Your task to perform on an android device: Show the shopping cart on walmart. Search for logitech g pro on walmart, select the first entry, and add it to the cart. Image 0: 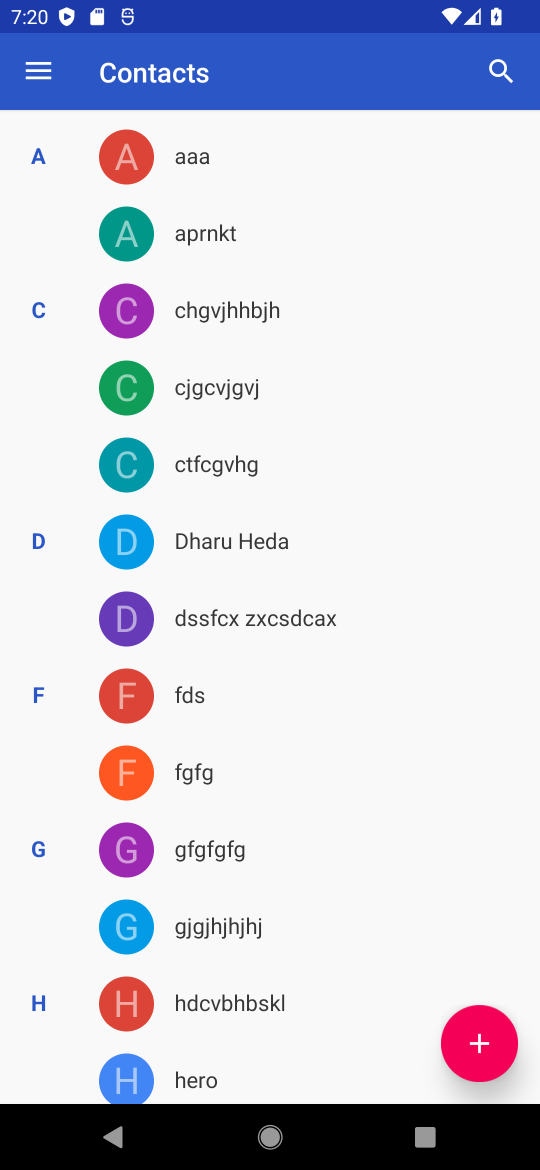
Step 0: press home button
Your task to perform on an android device: Show the shopping cart on walmart. Search for logitech g pro on walmart, select the first entry, and add it to the cart. Image 1: 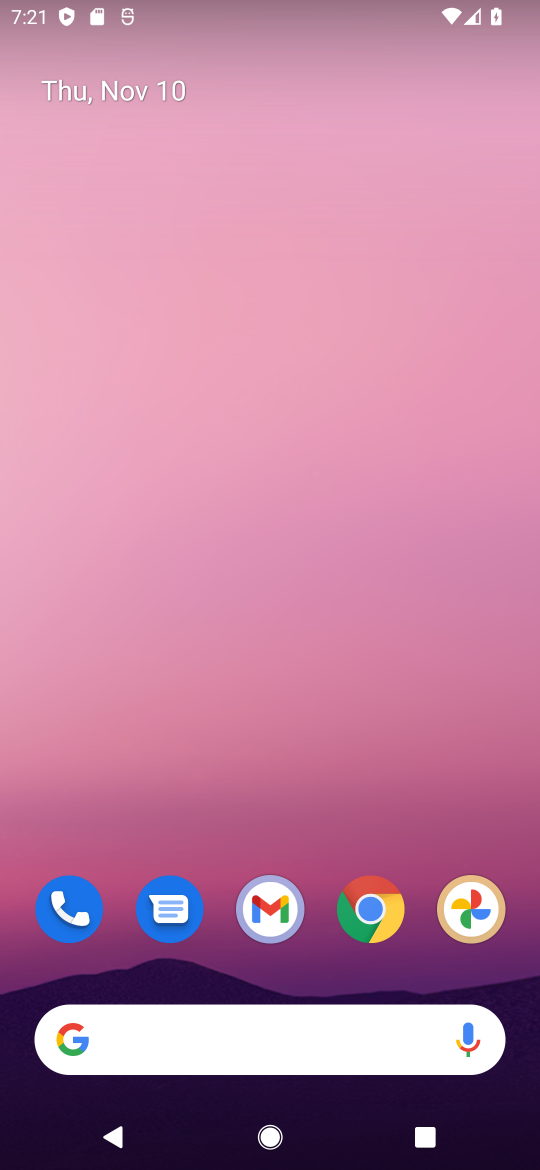
Step 1: drag from (237, 962) to (221, 411)
Your task to perform on an android device: Show the shopping cart on walmart. Search for logitech g pro on walmart, select the first entry, and add it to the cart. Image 2: 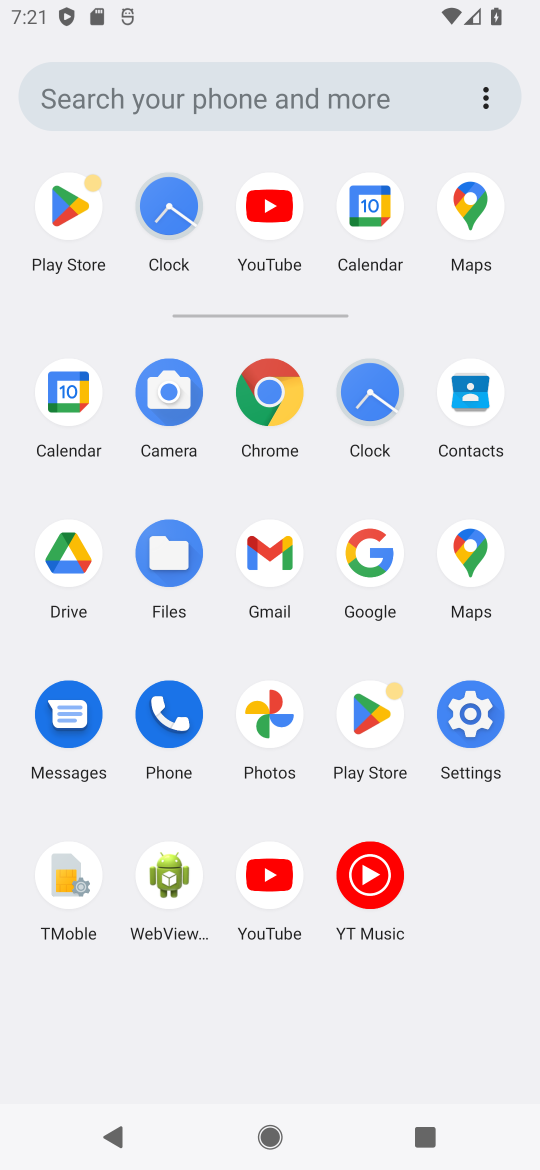
Step 2: click (377, 557)
Your task to perform on an android device: Show the shopping cart on walmart. Search for logitech g pro on walmart, select the first entry, and add it to the cart. Image 3: 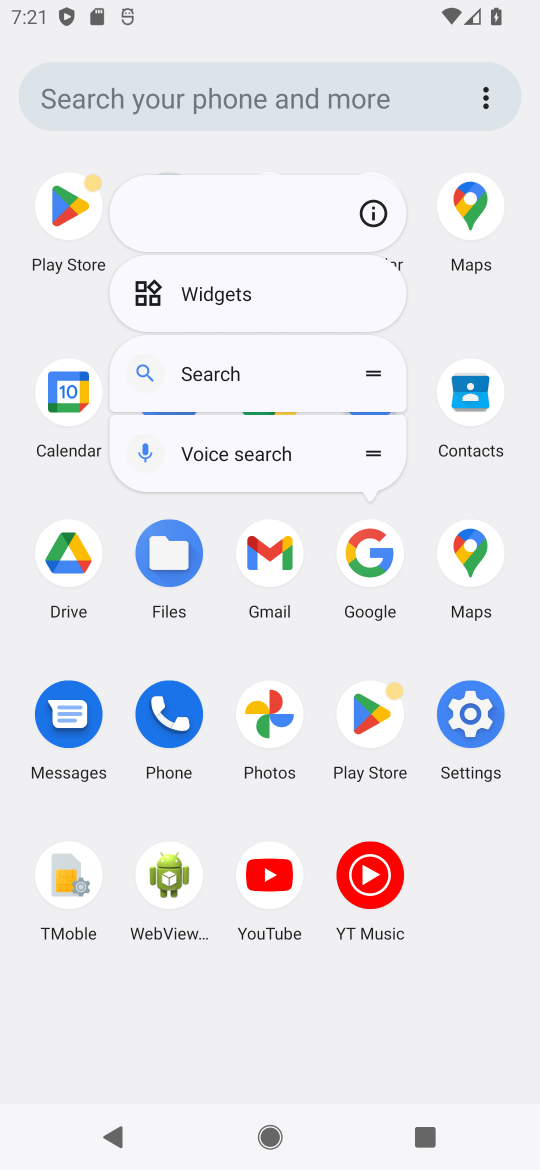
Step 3: click (355, 540)
Your task to perform on an android device: Show the shopping cart on walmart. Search for logitech g pro on walmart, select the first entry, and add it to the cart. Image 4: 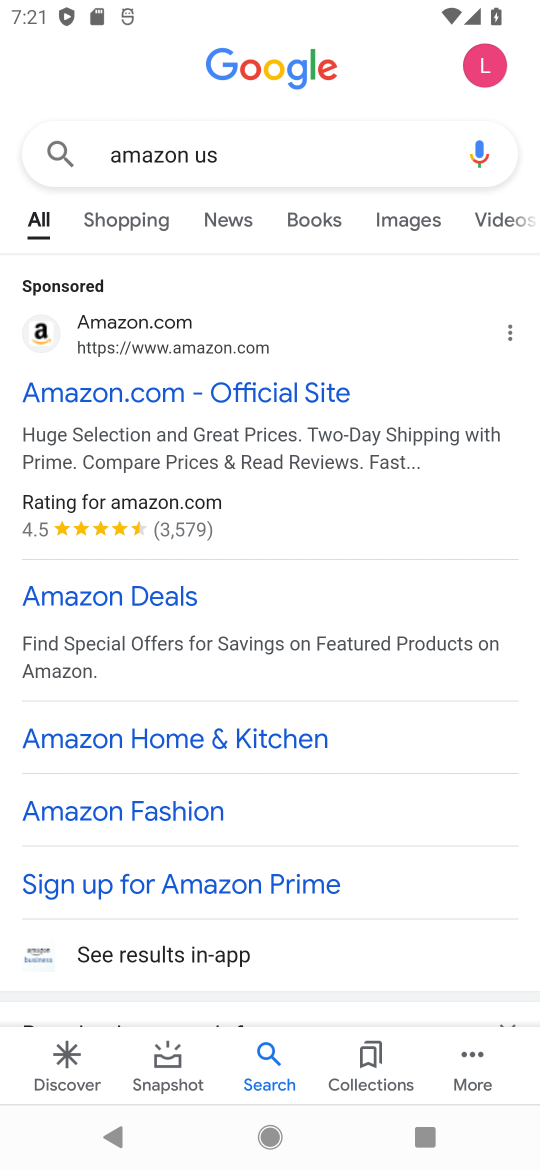
Step 4: click (39, 336)
Your task to perform on an android device: Show the shopping cart on walmart. Search for logitech g pro on walmart, select the first entry, and add it to the cart. Image 5: 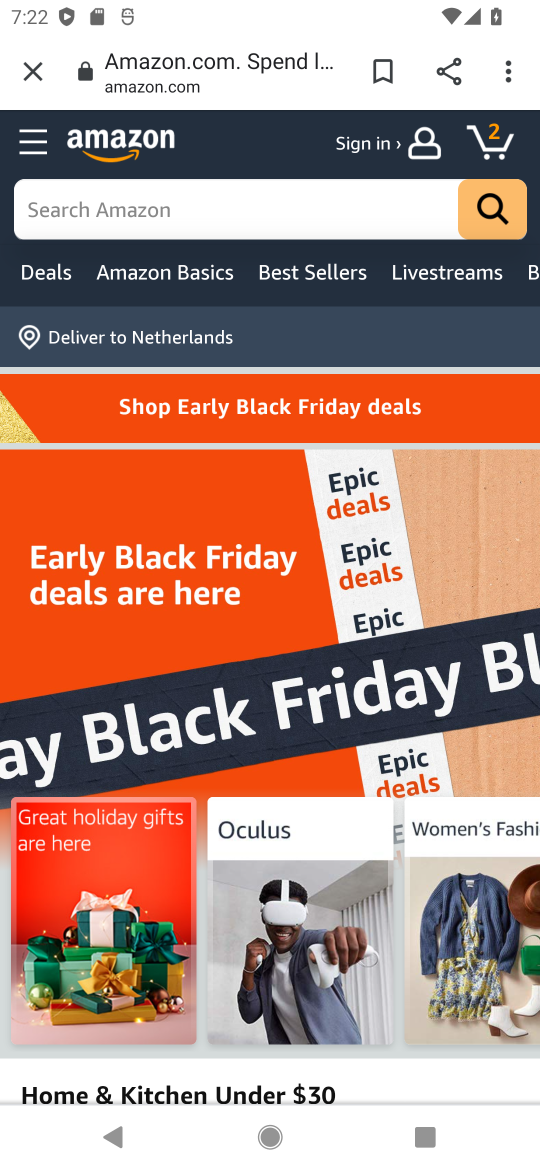
Step 5: click (189, 202)
Your task to perform on an android device: Show the shopping cart on walmart. Search for logitech g pro on walmart, select the first entry, and add it to the cart. Image 6: 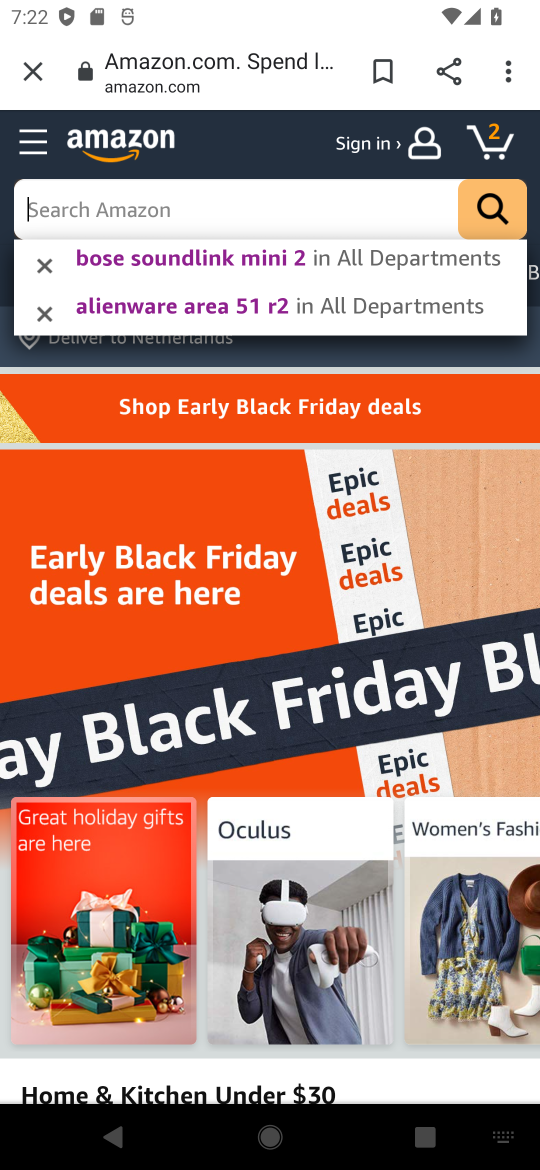
Step 6: type "logitech g pro  "
Your task to perform on an android device: Show the shopping cart on walmart. Search for logitech g pro on walmart, select the first entry, and add it to the cart. Image 7: 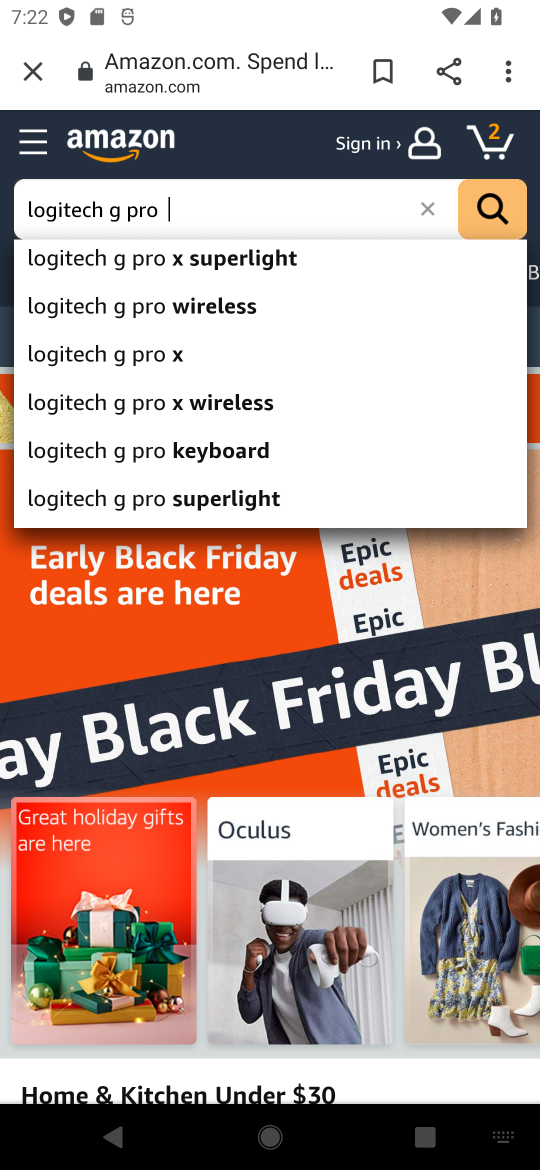
Step 7: click (103, 357)
Your task to perform on an android device: Show the shopping cart on walmart. Search for logitech g pro on walmart, select the first entry, and add it to the cart. Image 8: 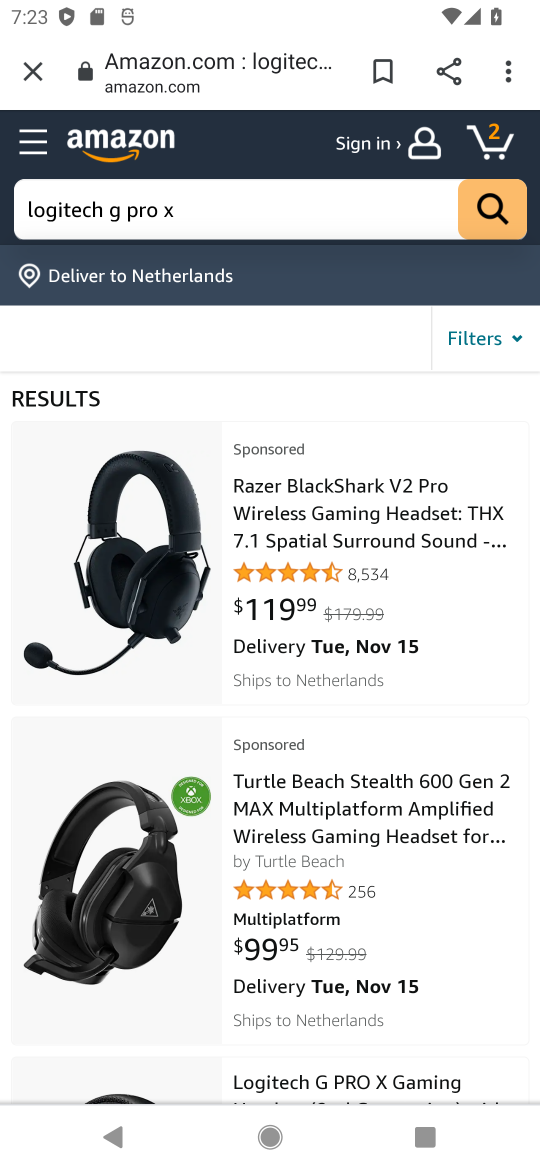
Step 8: drag from (394, 946) to (367, 588)
Your task to perform on an android device: Show the shopping cart on walmart. Search for logitech g pro on walmart, select the first entry, and add it to the cart. Image 9: 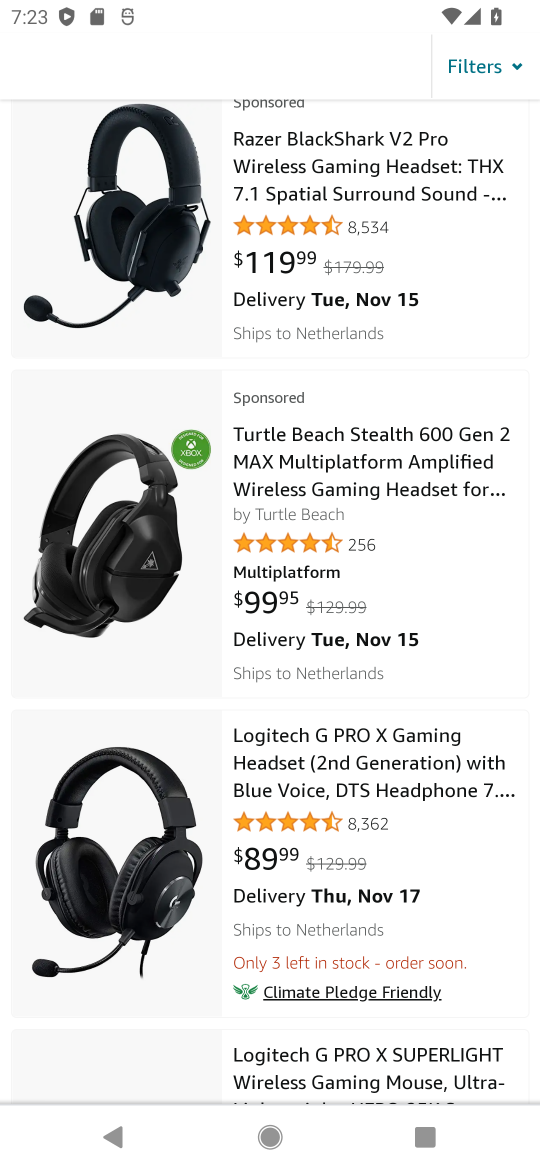
Step 9: click (312, 739)
Your task to perform on an android device: Show the shopping cart on walmart. Search for logitech g pro on walmart, select the first entry, and add it to the cart. Image 10: 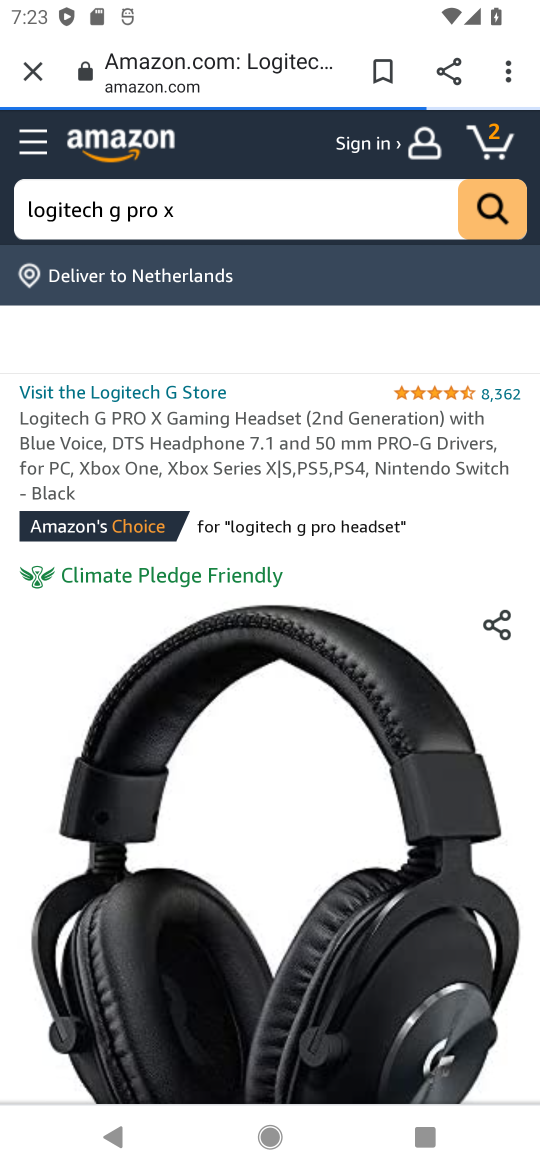
Step 10: drag from (233, 970) to (252, 530)
Your task to perform on an android device: Show the shopping cart on walmart. Search for logitech g pro on walmart, select the first entry, and add it to the cart. Image 11: 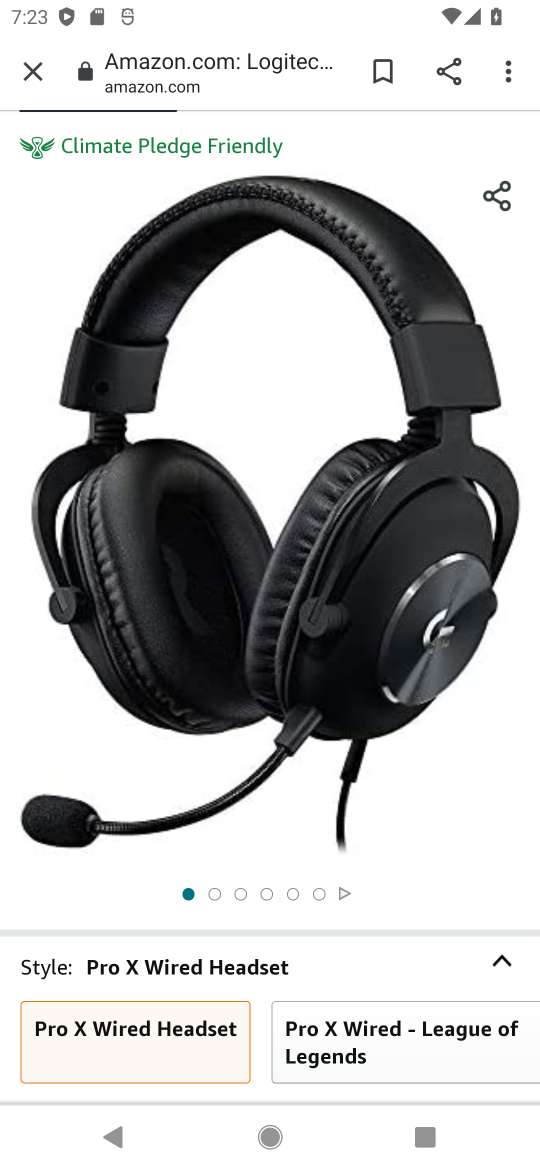
Step 11: drag from (311, 871) to (383, 203)
Your task to perform on an android device: Show the shopping cart on walmart. Search for logitech g pro on walmart, select the first entry, and add it to the cart. Image 12: 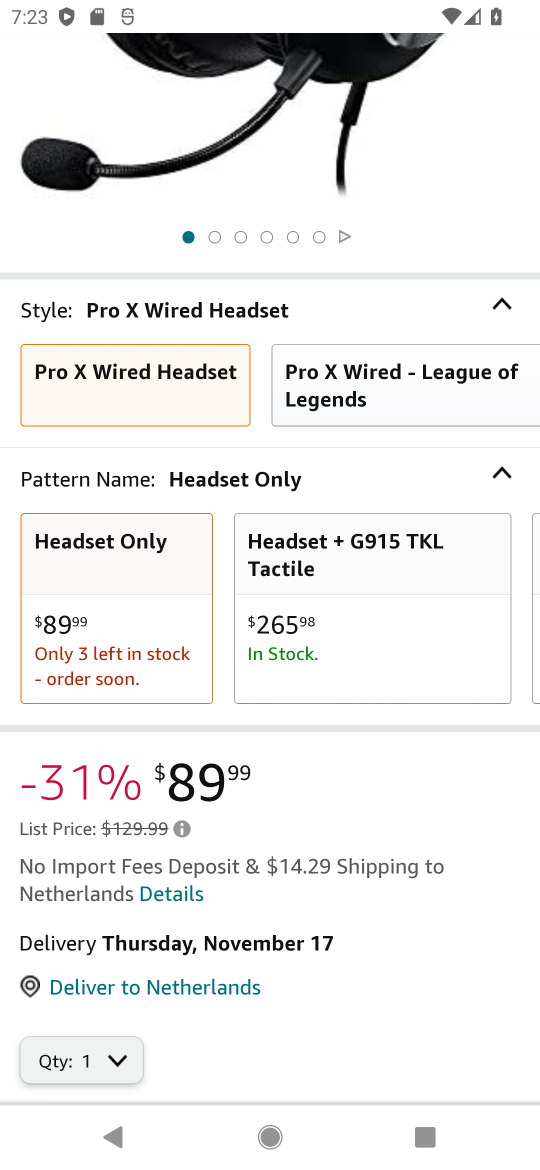
Step 12: drag from (346, 947) to (359, 171)
Your task to perform on an android device: Show the shopping cart on walmart. Search for logitech g pro on walmart, select the first entry, and add it to the cart. Image 13: 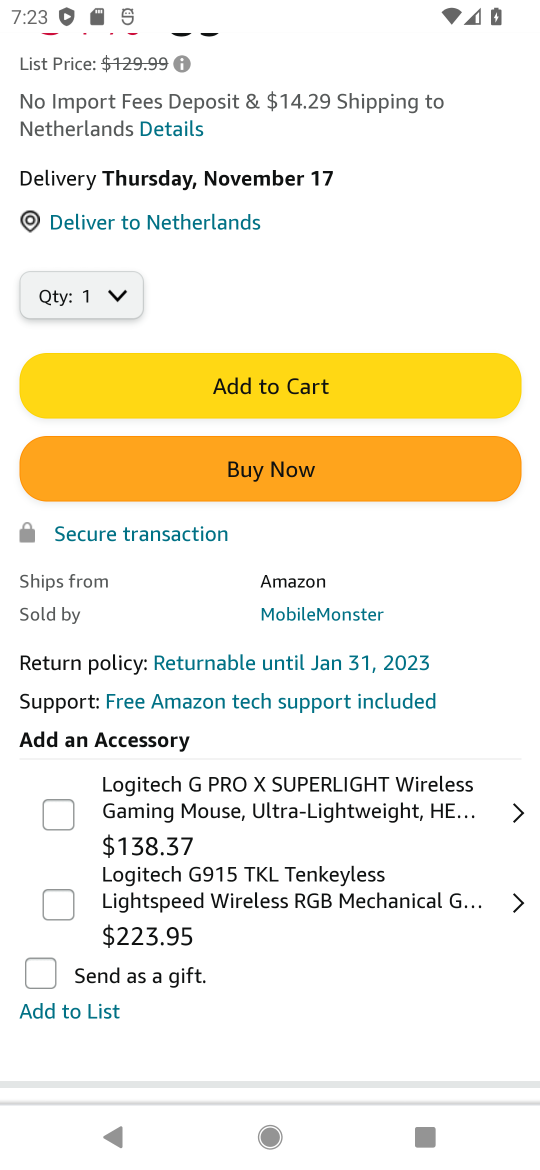
Step 13: click (275, 368)
Your task to perform on an android device: Show the shopping cart on walmart. Search for logitech g pro on walmart, select the first entry, and add it to the cart. Image 14: 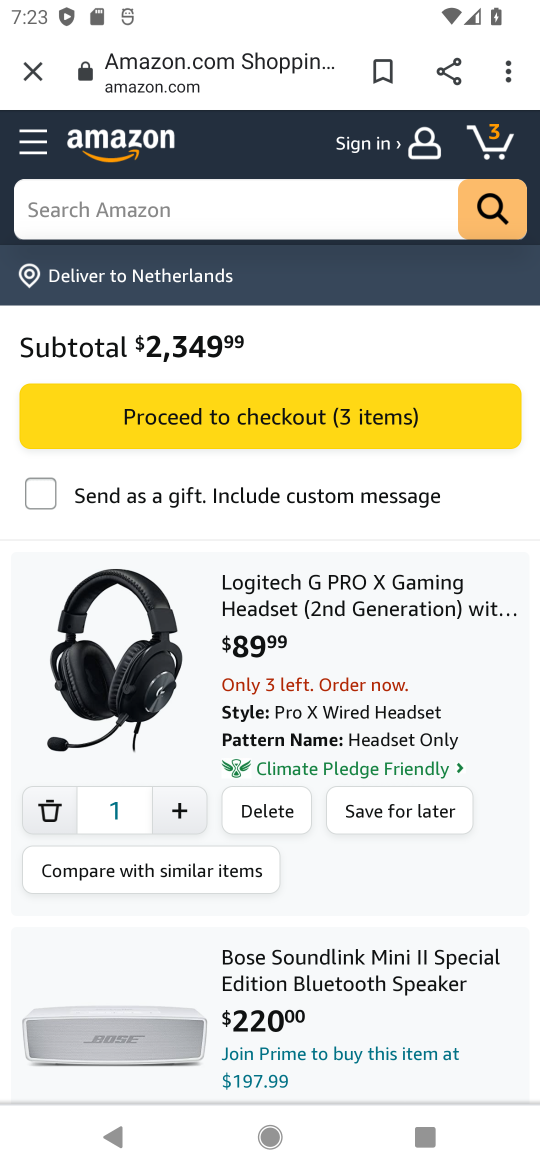
Step 14: task complete